Your task to perform on an android device: toggle translation in the chrome app Image 0: 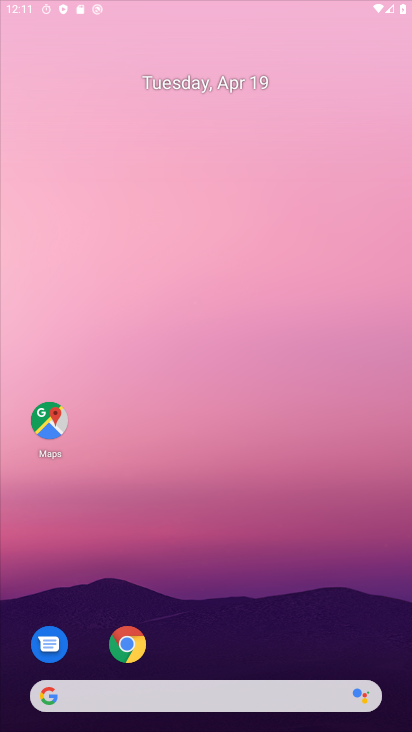
Step 0: drag from (258, 308) to (258, 151)
Your task to perform on an android device: toggle translation in the chrome app Image 1: 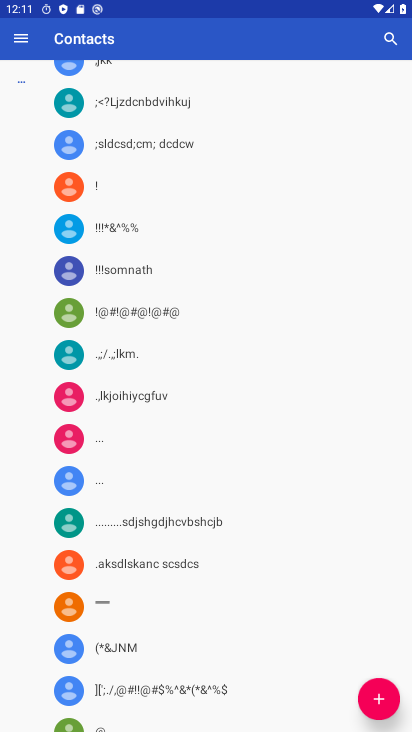
Step 1: press home button
Your task to perform on an android device: toggle translation in the chrome app Image 2: 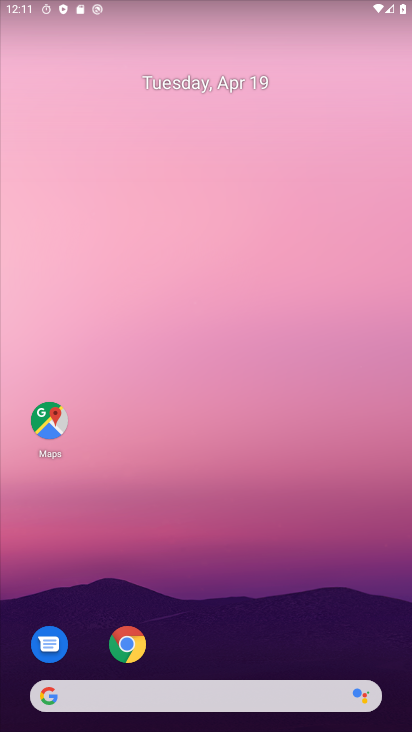
Step 2: drag from (285, 617) to (250, 118)
Your task to perform on an android device: toggle translation in the chrome app Image 3: 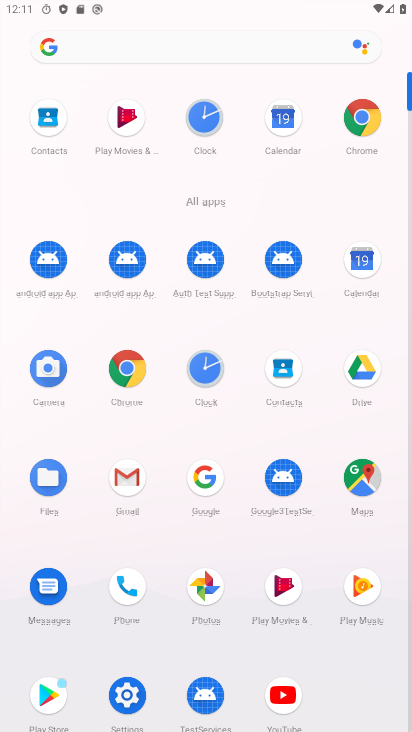
Step 3: click (359, 114)
Your task to perform on an android device: toggle translation in the chrome app Image 4: 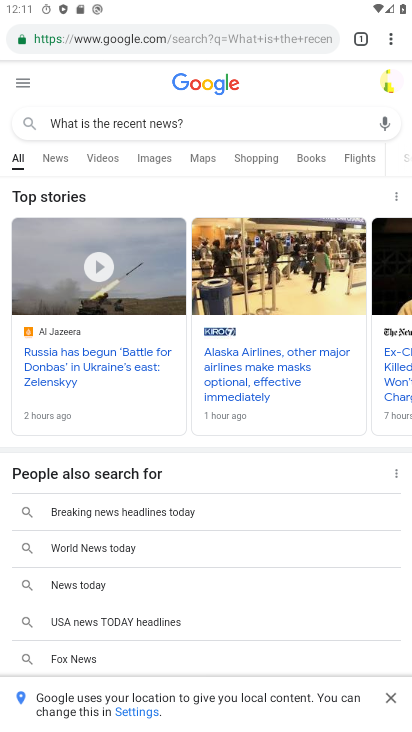
Step 4: click (393, 30)
Your task to perform on an android device: toggle translation in the chrome app Image 5: 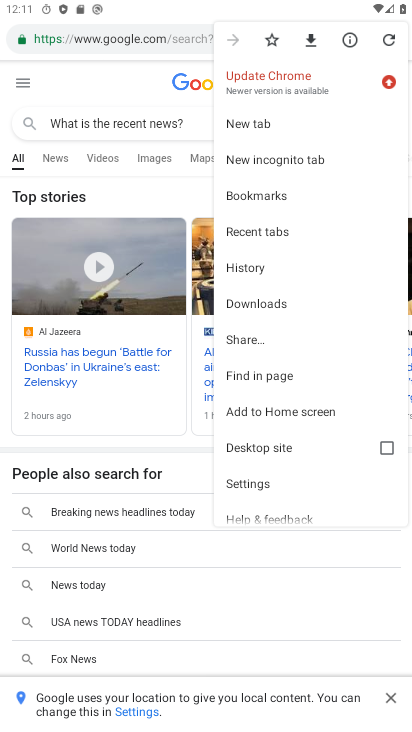
Step 5: click (266, 487)
Your task to perform on an android device: toggle translation in the chrome app Image 6: 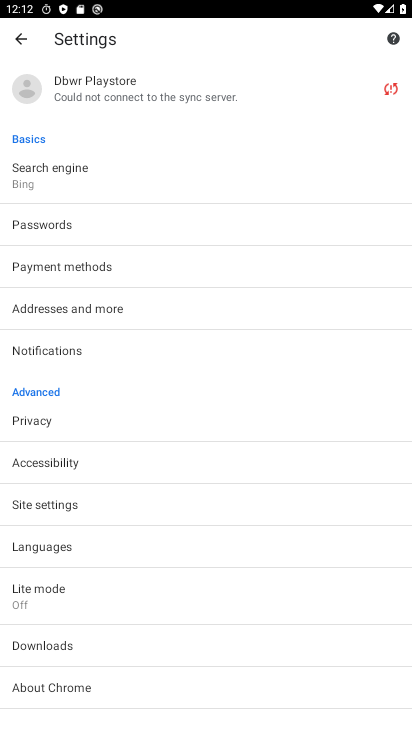
Step 6: click (103, 546)
Your task to perform on an android device: toggle translation in the chrome app Image 7: 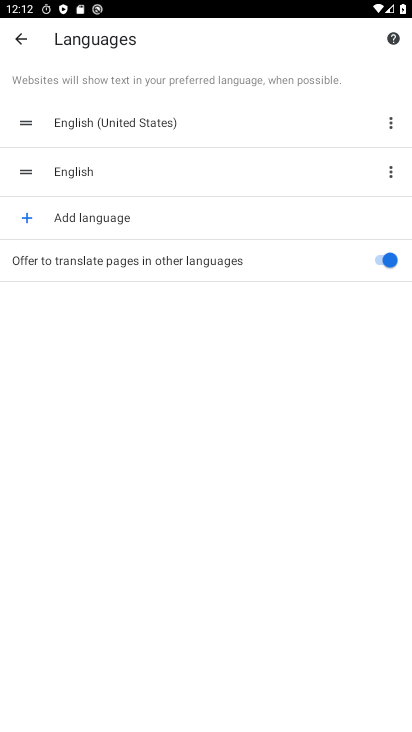
Step 7: task complete